Your task to perform on an android device: turn on notifications settings in the gmail app Image 0: 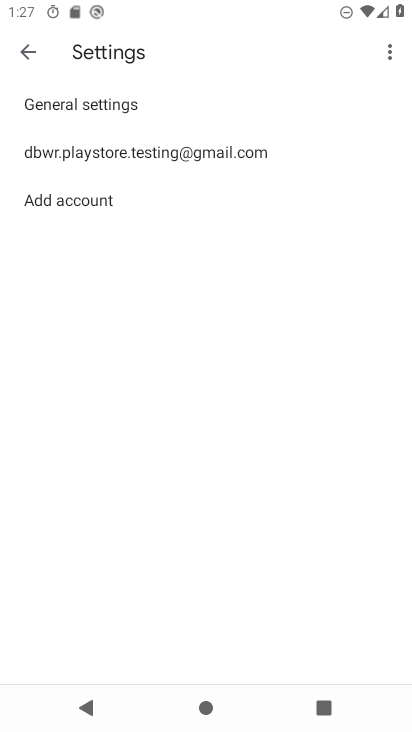
Step 0: press home button
Your task to perform on an android device: turn on notifications settings in the gmail app Image 1: 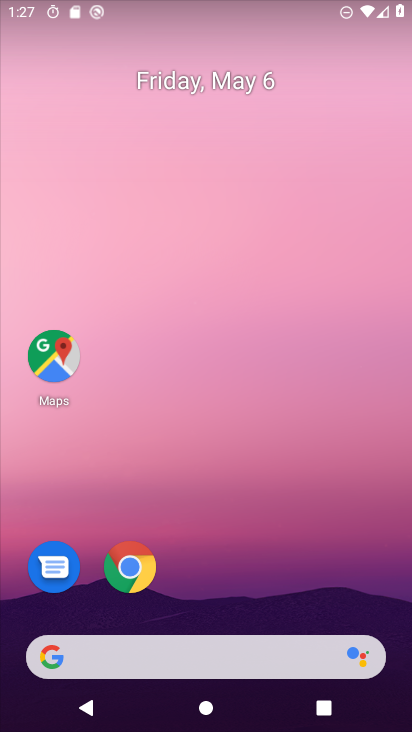
Step 1: drag from (302, 605) to (274, 0)
Your task to perform on an android device: turn on notifications settings in the gmail app Image 2: 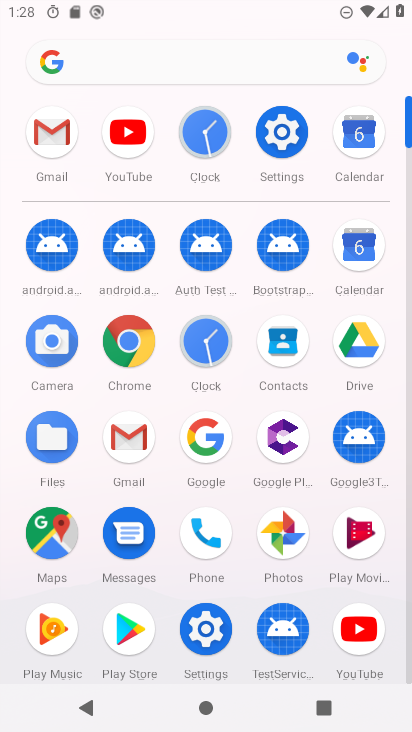
Step 2: click (118, 442)
Your task to perform on an android device: turn on notifications settings in the gmail app Image 3: 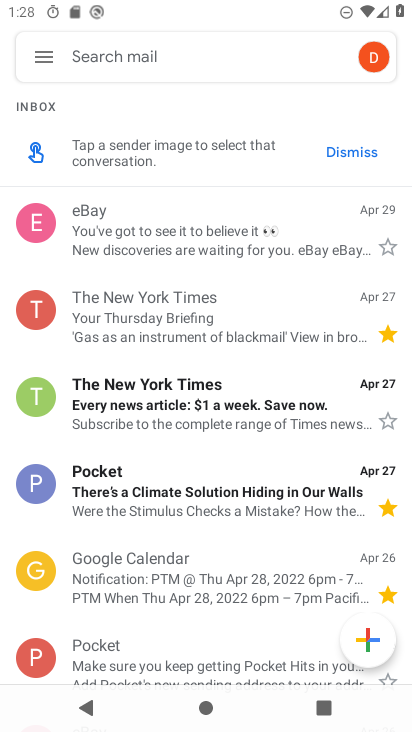
Step 3: click (50, 62)
Your task to perform on an android device: turn on notifications settings in the gmail app Image 4: 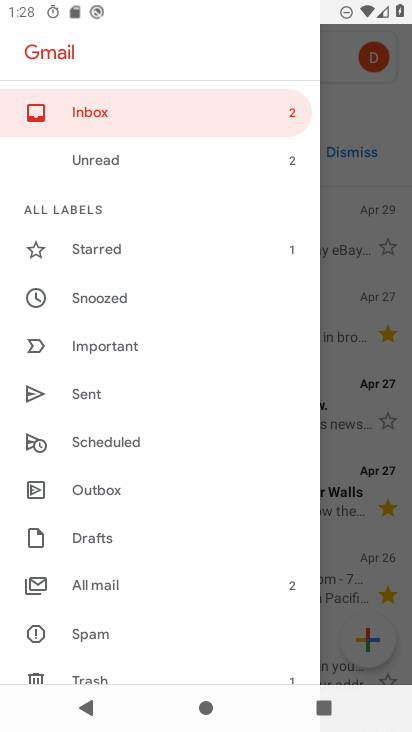
Step 4: drag from (159, 624) to (154, 228)
Your task to perform on an android device: turn on notifications settings in the gmail app Image 5: 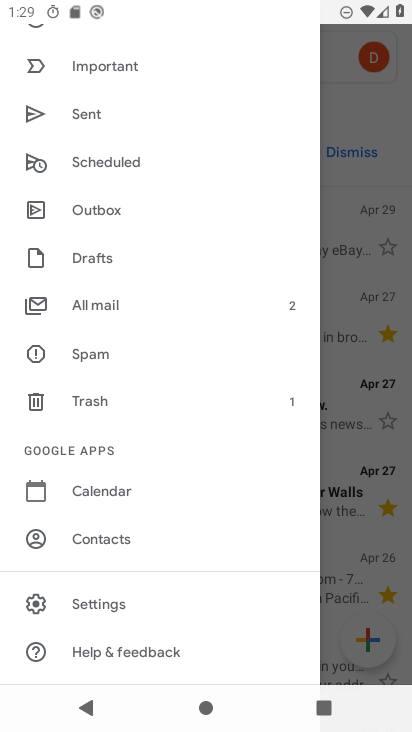
Step 5: click (109, 605)
Your task to perform on an android device: turn on notifications settings in the gmail app Image 6: 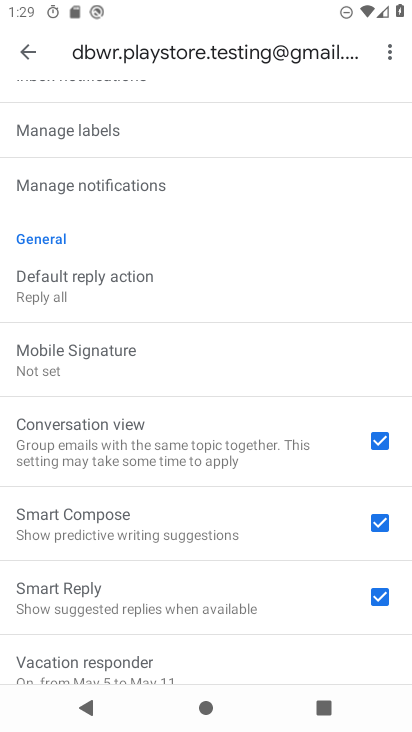
Step 6: click (28, 57)
Your task to perform on an android device: turn on notifications settings in the gmail app Image 7: 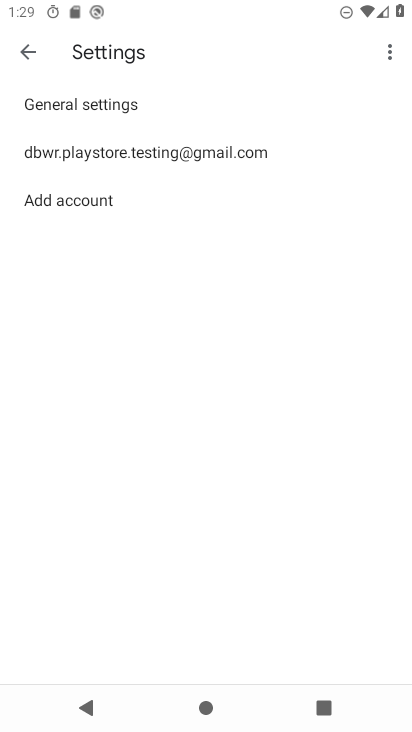
Step 7: click (50, 103)
Your task to perform on an android device: turn on notifications settings in the gmail app Image 8: 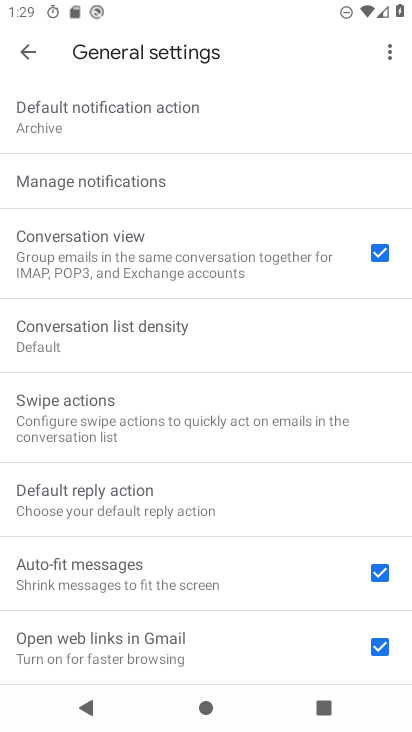
Step 8: click (61, 187)
Your task to perform on an android device: turn on notifications settings in the gmail app Image 9: 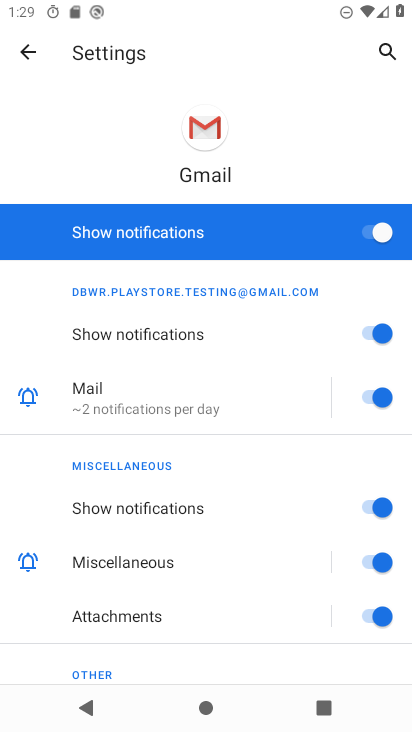
Step 9: task complete